Your task to perform on an android device: turn off airplane mode Image 0: 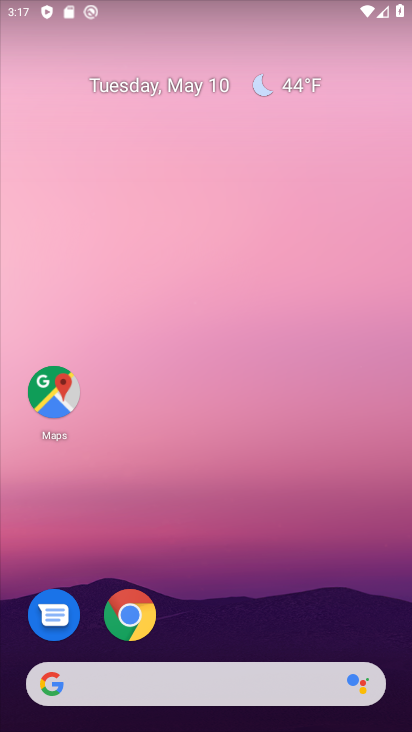
Step 0: drag from (286, 615) to (317, 20)
Your task to perform on an android device: turn off airplane mode Image 1: 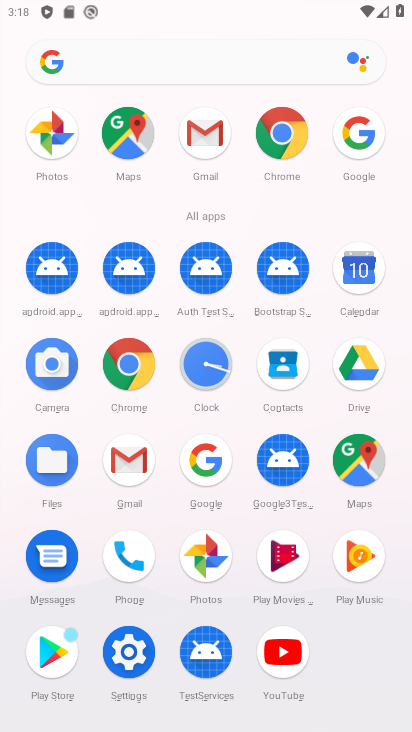
Step 1: click (114, 641)
Your task to perform on an android device: turn off airplane mode Image 2: 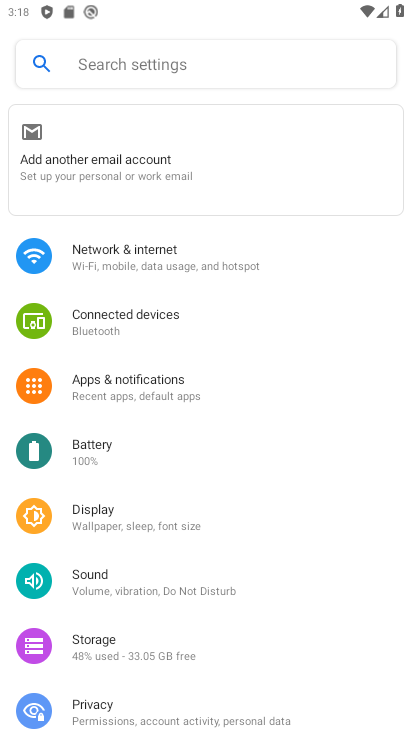
Step 2: click (165, 271)
Your task to perform on an android device: turn off airplane mode Image 3: 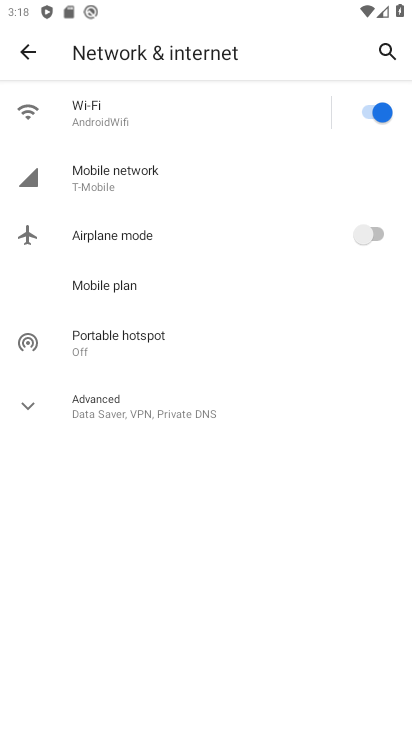
Step 3: task complete